Your task to perform on an android device: Show me popular videos on Youtube Image 0: 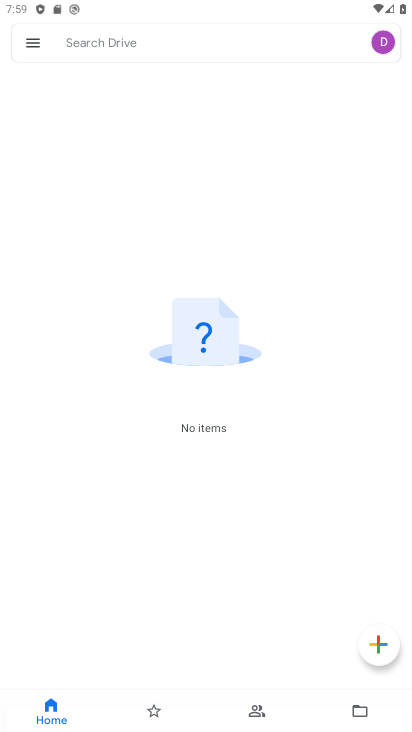
Step 0: press home button
Your task to perform on an android device: Show me popular videos on Youtube Image 1: 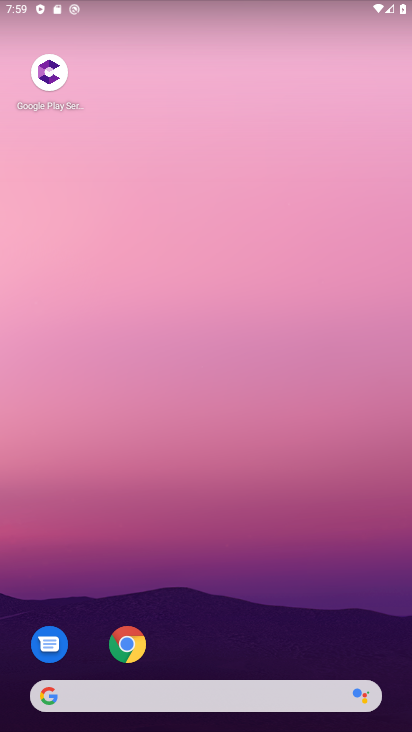
Step 1: drag from (26, 718) to (275, 141)
Your task to perform on an android device: Show me popular videos on Youtube Image 2: 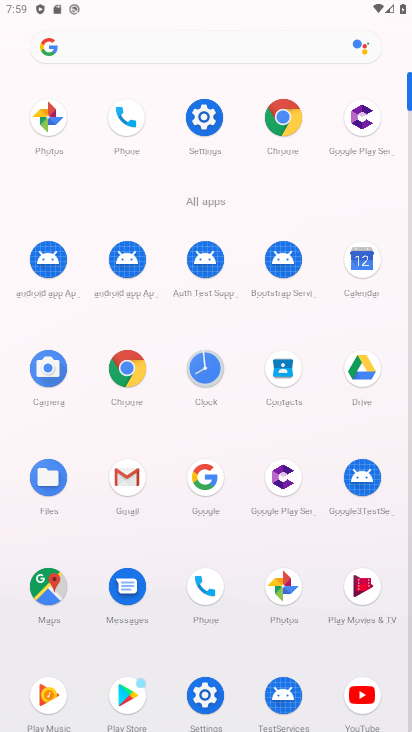
Step 2: click (364, 696)
Your task to perform on an android device: Show me popular videos on Youtube Image 3: 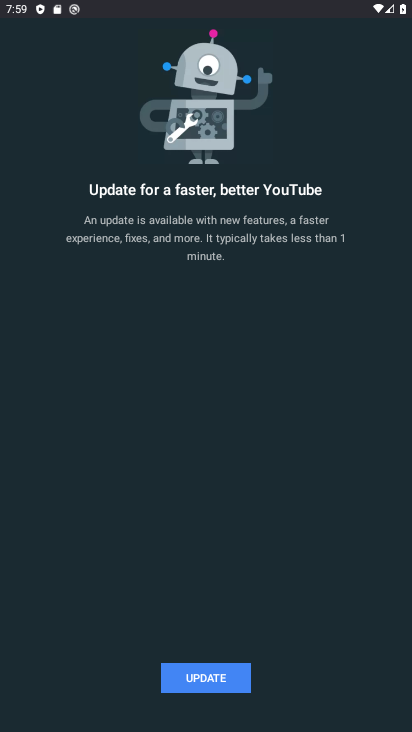
Step 3: click (217, 682)
Your task to perform on an android device: Show me popular videos on Youtube Image 4: 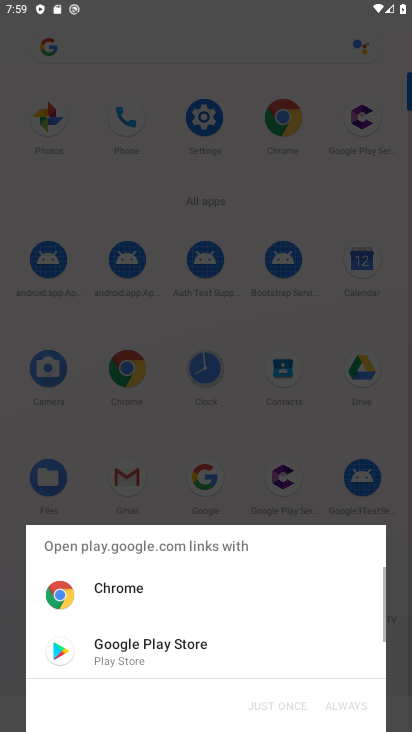
Step 4: click (121, 634)
Your task to perform on an android device: Show me popular videos on Youtube Image 5: 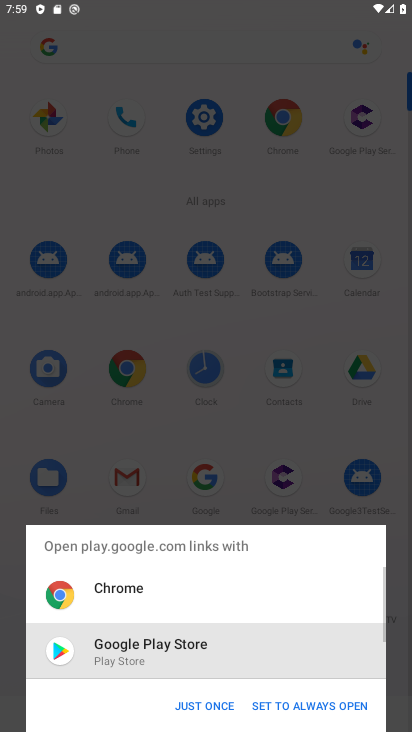
Step 5: click (183, 700)
Your task to perform on an android device: Show me popular videos on Youtube Image 6: 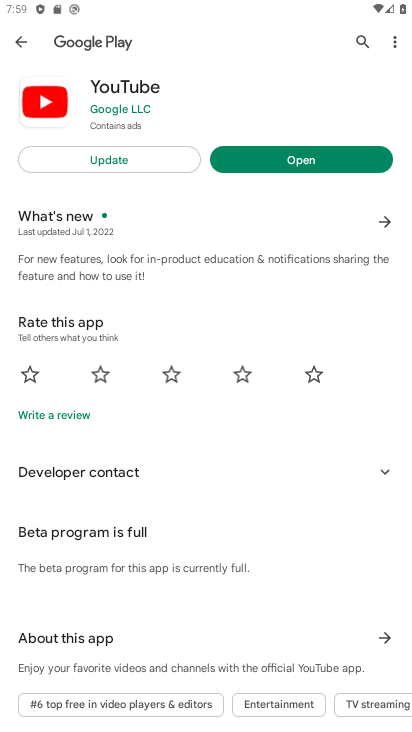
Step 6: click (262, 159)
Your task to perform on an android device: Show me popular videos on Youtube Image 7: 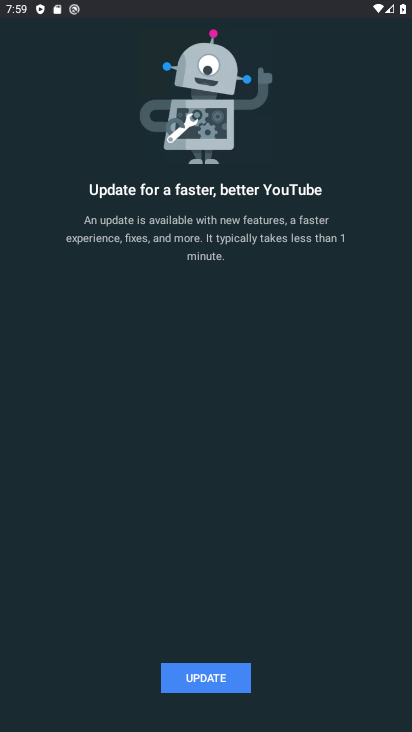
Step 7: task complete